Your task to perform on an android device: turn on priority inbox in the gmail app Image 0: 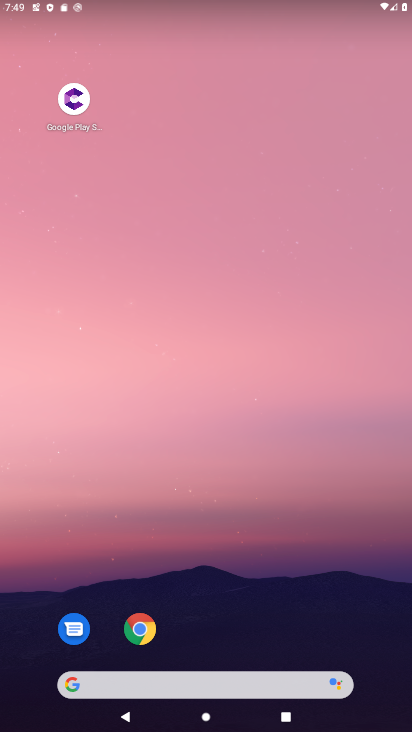
Step 0: drag from (251, 623) to (291, 84)
Your task to perform on an android device: turn on priority inbox in the gmail app Image 1: 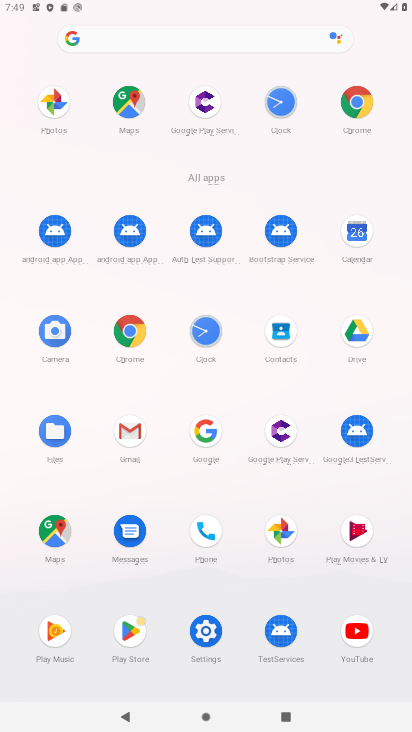
Step 1: click (125, 424)
Your task to perform on an android device: turn on priority inbox in the gmail app Image 2: 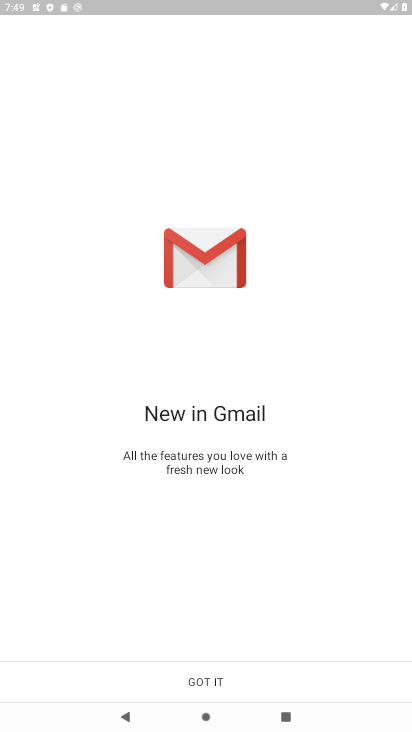
Step 2: click (356, 673)
Your task to perform on an android device: turn on priority inbox in the gmail app Image 3: 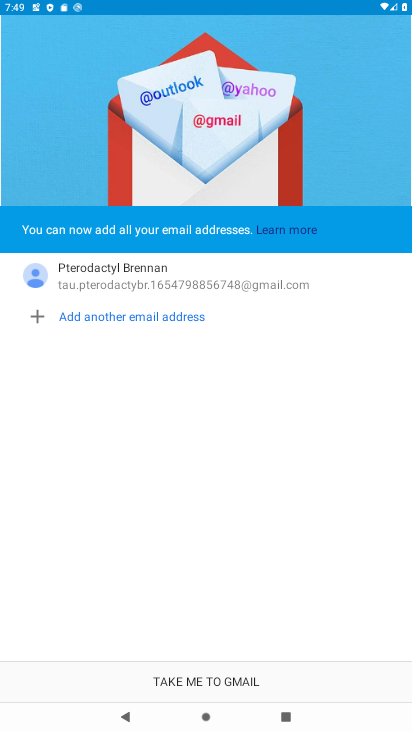
Step 3: click (357, 671)
Your task to perform on an android device: turn on priority inbox in the gmail app Image 4: 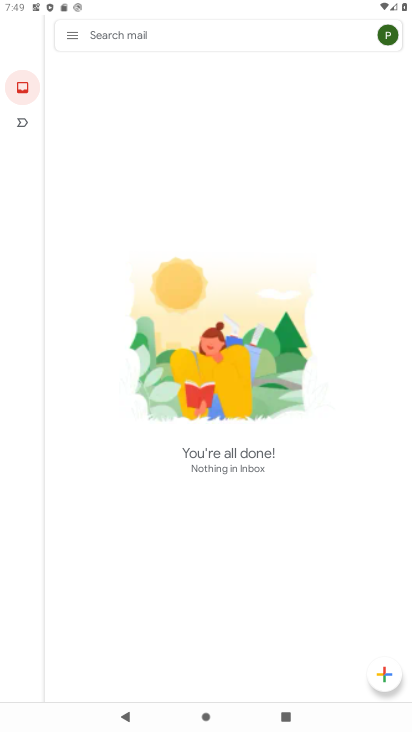
Step 4: click (68, 44)
Your task to perform on an android device: turn on priority inbox in the gmail app Image 5: 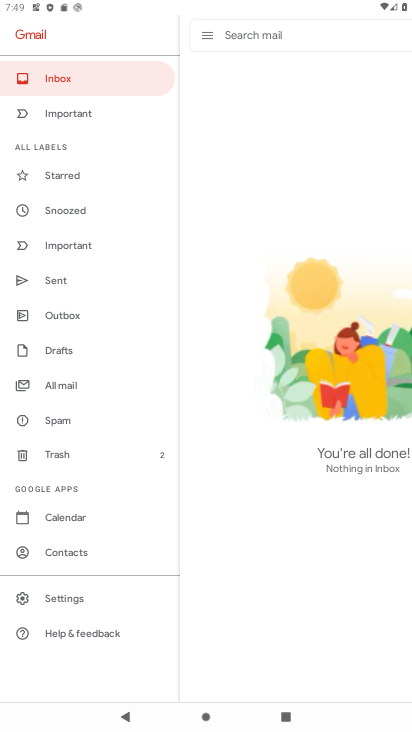
Step 5: click (83, 594)
Your task to perform on an android device: turn on priority inbox in the gmail app Image 6: 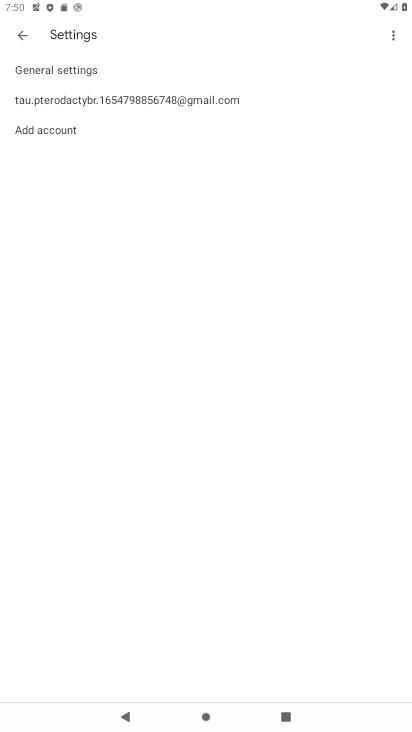
Step 6: click (225, 107)
Your task to perform on an android device: turn on priority inbox in the gmail app Image 7: 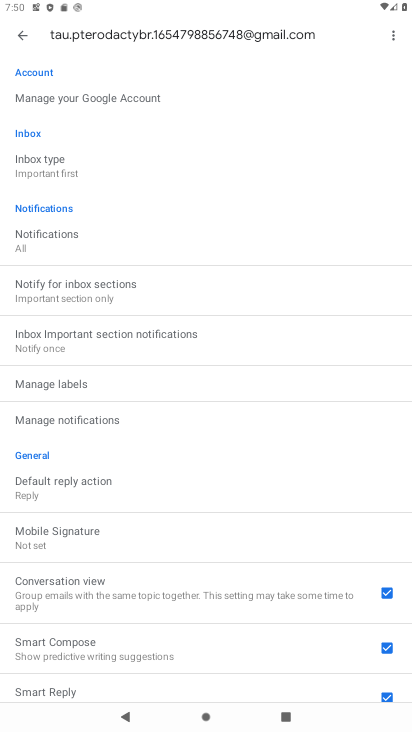
Step 7: click (53, 157)
Your task to perform on an android device: turn on priority inbox in the gmail app Image 8: 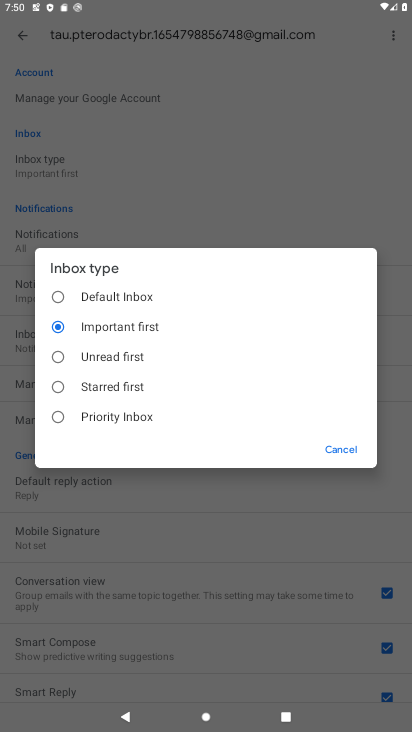
Step 8: click (97, 412)
Your task to perform on an android device: turn on priority inbox in the gmail app Image 9: 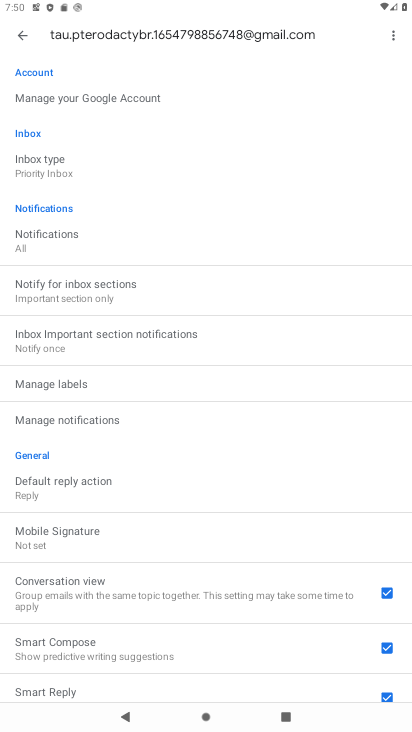
Step 9: task complete